Your task to perform on an android device: Open the phone app and click the voicemail tab. Image 0: 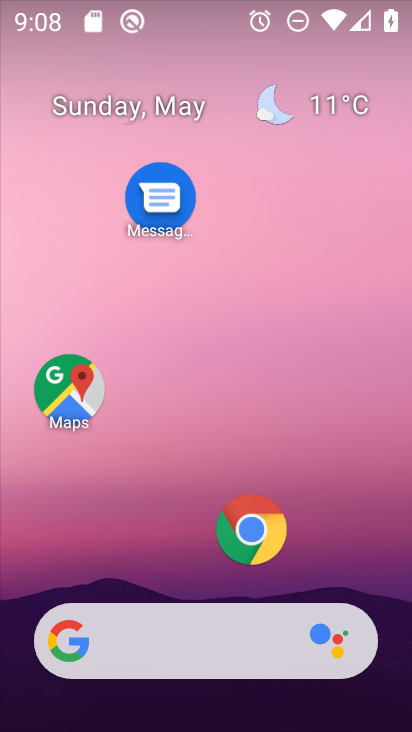
Step 0: press home button
Your task to perform on an android device: Open the phone app and click the voicemail tab. Image 1: 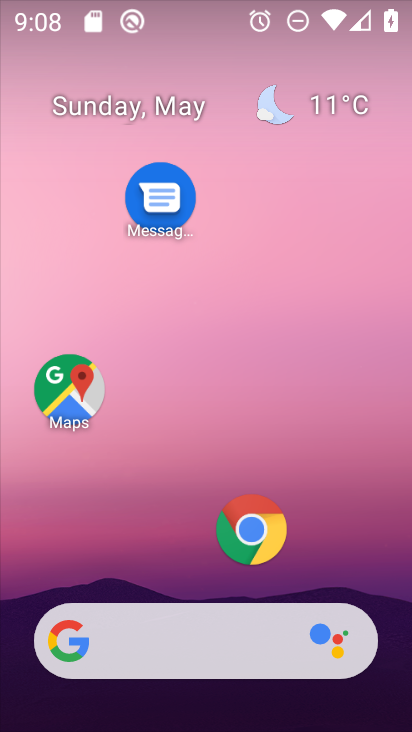
Step 1: drag from (192, 577) to (246, 137)
Your task to perform on an android device: Open the phone app and click the voicemail tab. Image 2: 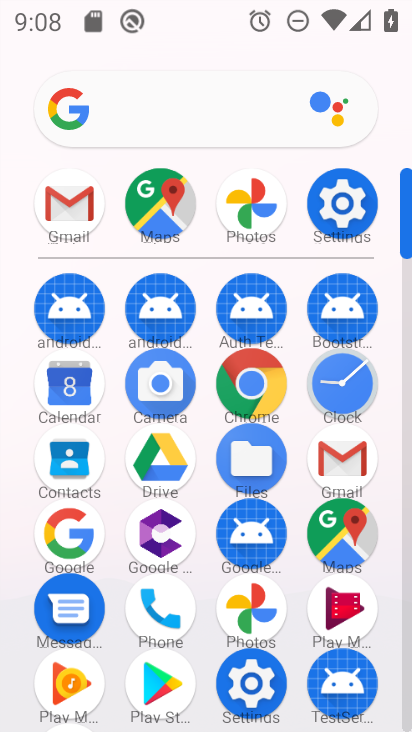
Step 2: click (158, 598)
Your task to perform on an android device: Open the phone app and click the voicemail tab. Image 3: 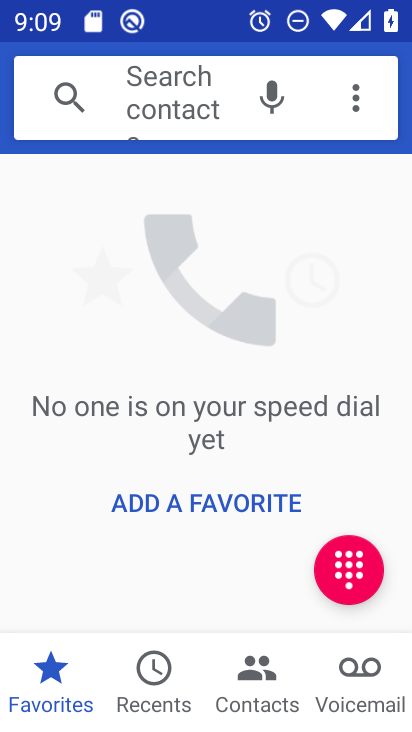
Step 3: click (361, 664)
Your task to perform on an android device: Open the phone app and click the voicemail tab. Image 4: 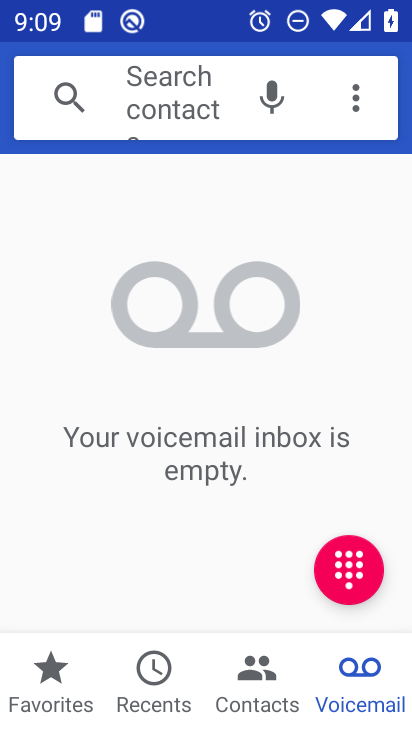
Step 4: task complete